Your task to perform on an android device: change notification settings in the gmail app Image 0: 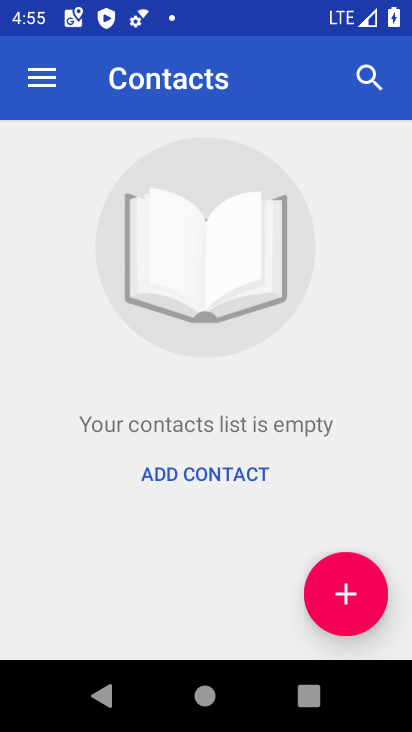
Step 0: press home button
Your task to perform on an android device: change notification settings in the gmail app Image 1: 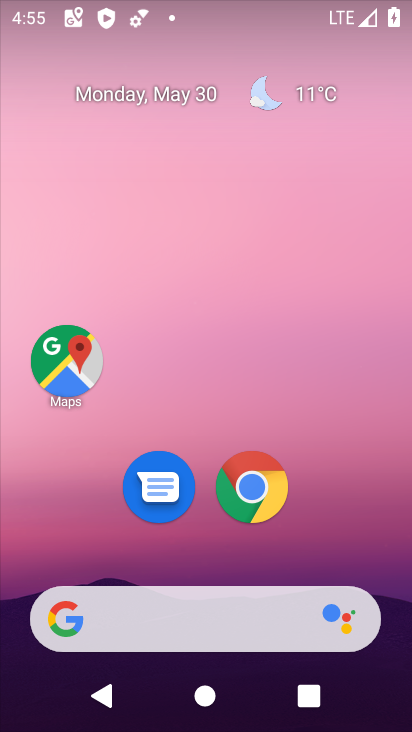
Step 1: drag from (394, 635) to (363, 140)
Your task to perform on an android device: change notification settings in the gmail app Image 2: 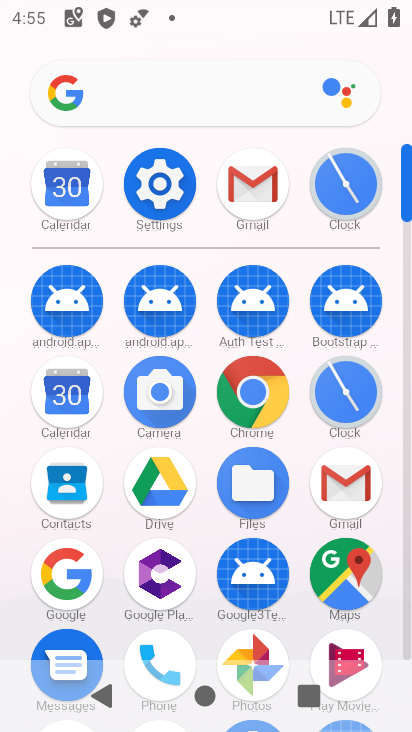
Step 2: click (406, 600)
Your task to perform on an android device: change notification settings in the gmail app Image 3: 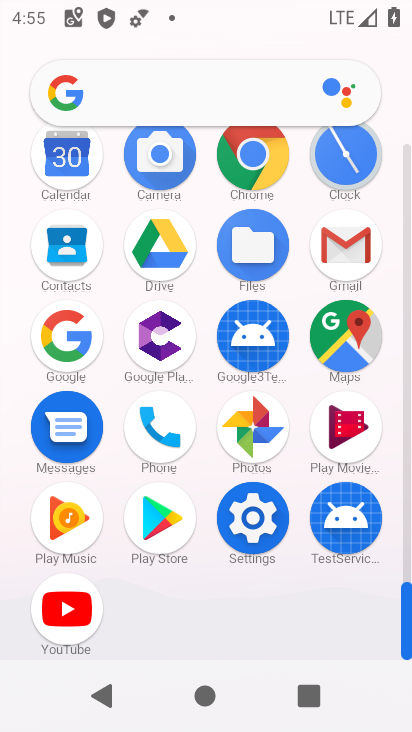
Step 3: click (342, 247)
Your task to perform on an android device: change notification settings in the gmail app Image 4: 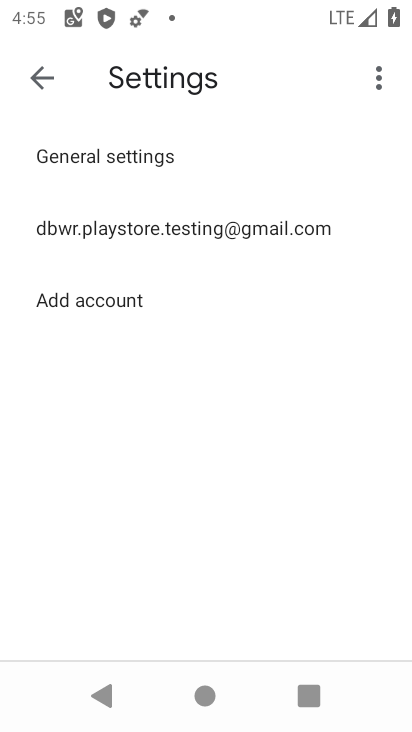
Step 4: click (150, 226)
Your task to perform on an android device: change notification settings in the gmail app Image 5: 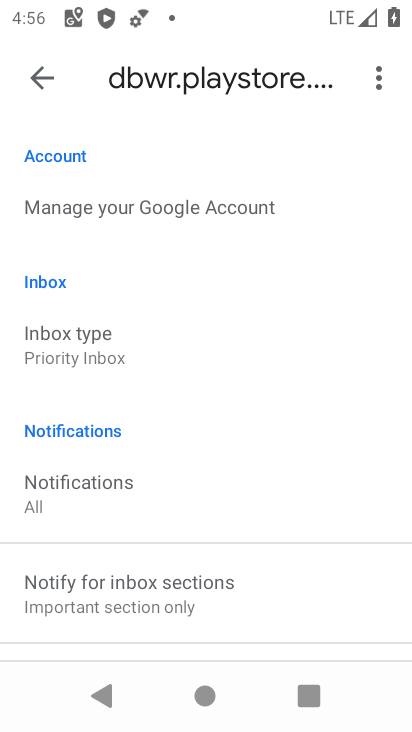
Step 5: drag from (232, 537) to (211, 201)
Your task to perform on an android device: change notification settings in the gmail app Image 6: 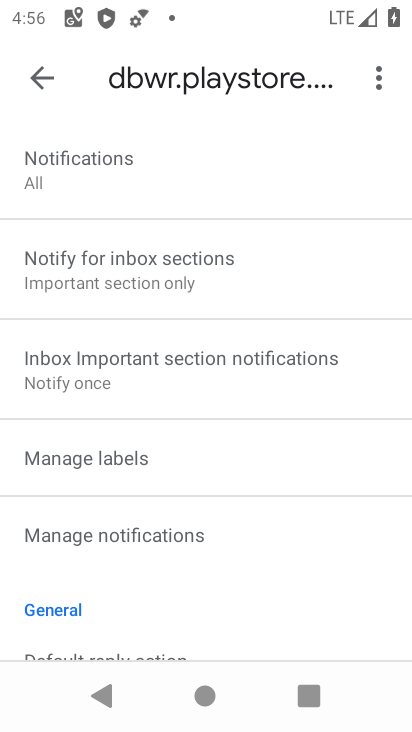
Step 6: click (124, 538)
Your task to perform on an android device: change notification settings in the gmail app Image 7: 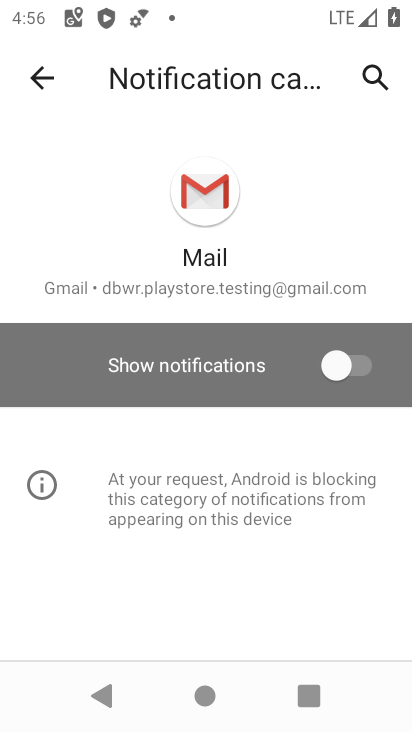
Step 7: click (363, 361)
Your task to perform on an android device: change notification settings in the gmail app Image 8: 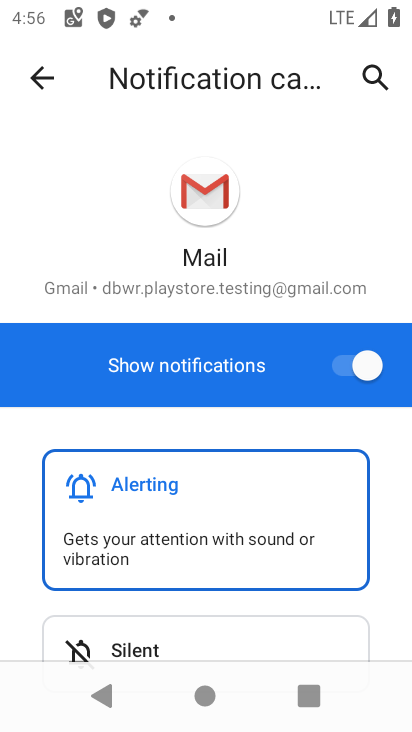
Step 8: task complete